Your task to perform on an android device: Open battery settings Image 0: 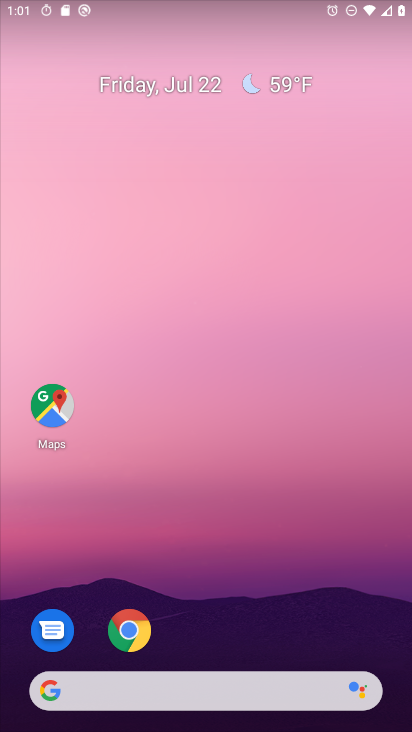
Step 0: press home button
Your task to perform on an android device: Open battery settings Image 1: 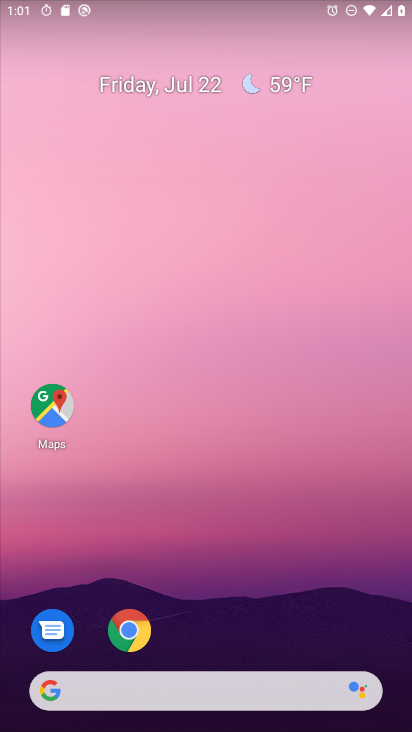
Step 1: click (407, 152)
Your task to perform on an android device: Open battery settings Image 2: 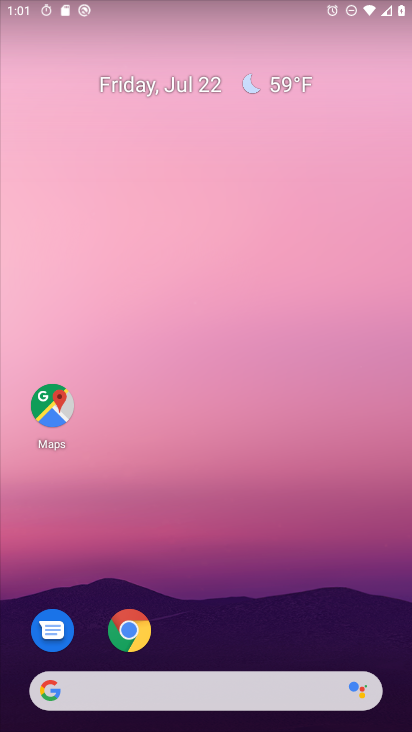
Step 2: drag from (282, 646) to (281, 225)
Your task to perform on an android device: Open battery settings Image 3: 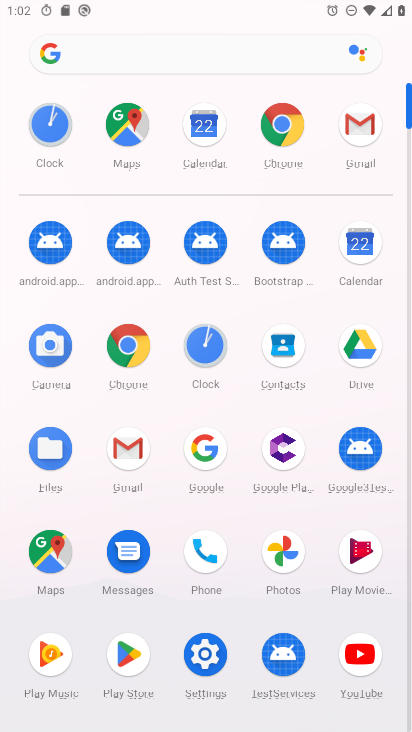
Step 3: click (200, 651)
Your task to perform on an android device: Open battery settings Image 4: 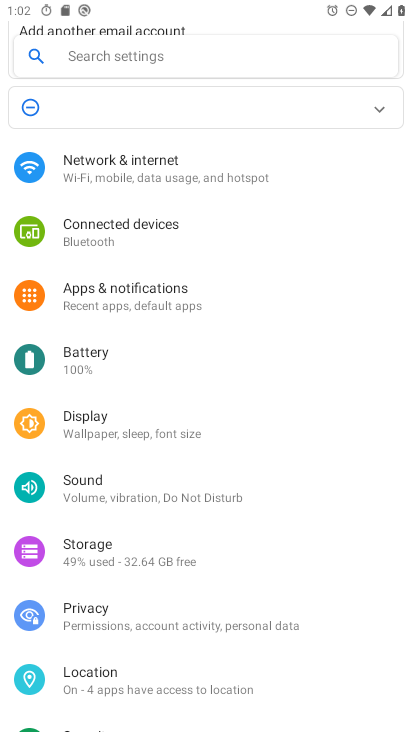
Step 4: click (78, 362)
Your task to perform on an android device: Open battery settings Image 5: 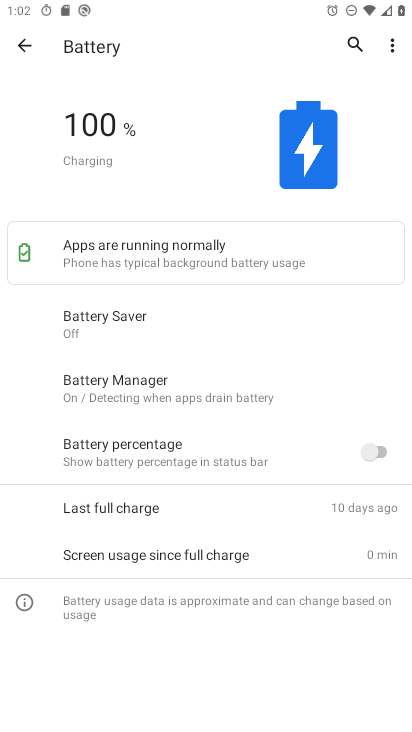
Step 5: task complete